Your task to perform on an android device: delete browsing data in the chrome app Image 0: 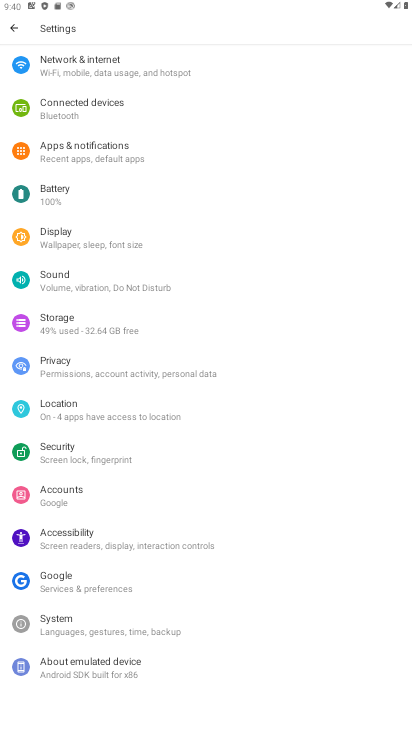
Step 0: press home button
Your task to perform on an android device: delete browsing data in the chrome app Image 1: 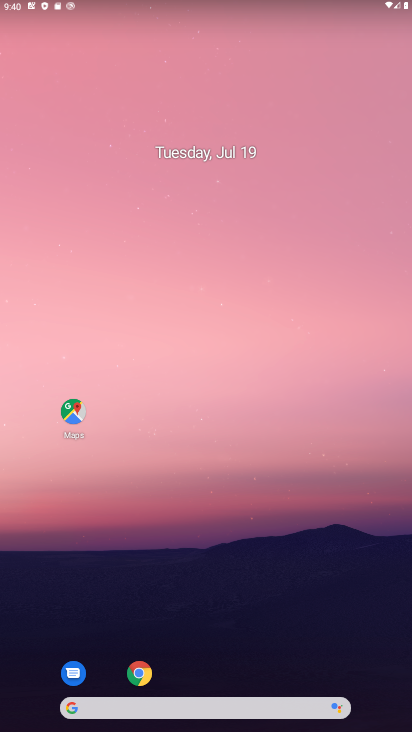
Step 1: click (150, 667)
Your task to perform on an android device: delete browsing data in the chrome app Image 2: 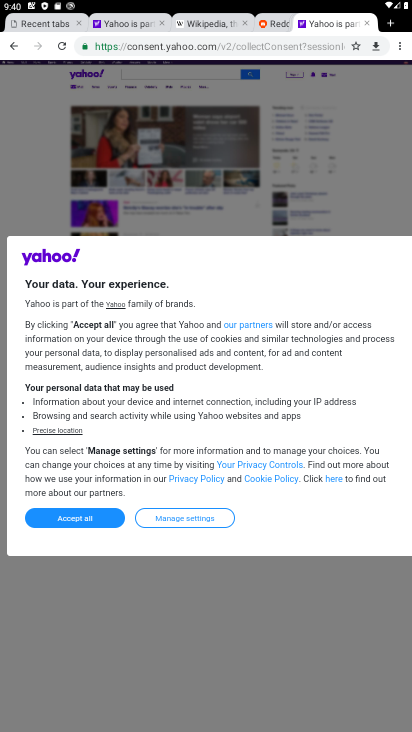
Step 2: drag from (399, 41) to (329, 171)
Your task to perform on an android device: delete browsing data in the chrome app Image 3: 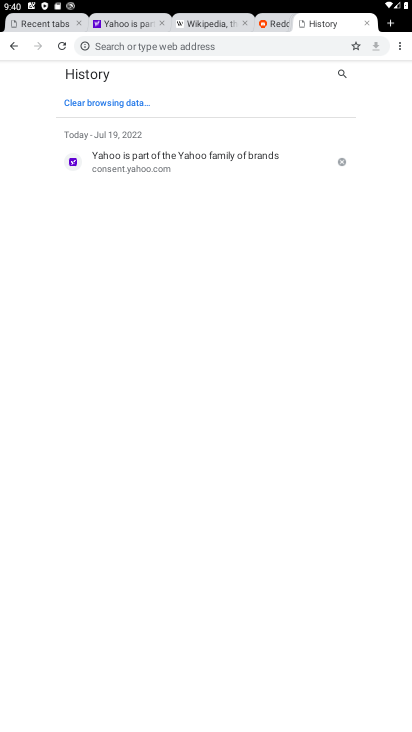
Step 3: click (125, 100)
Your task to perform on an android device: delete browsing data in the chrome app Image 4: 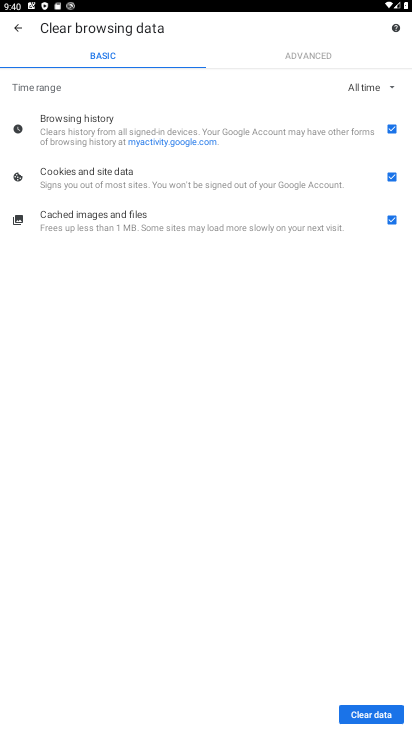
Step 4: click (379, 712)
Your task to perform on an android device: delete browsing data in the chrome app Image 5: 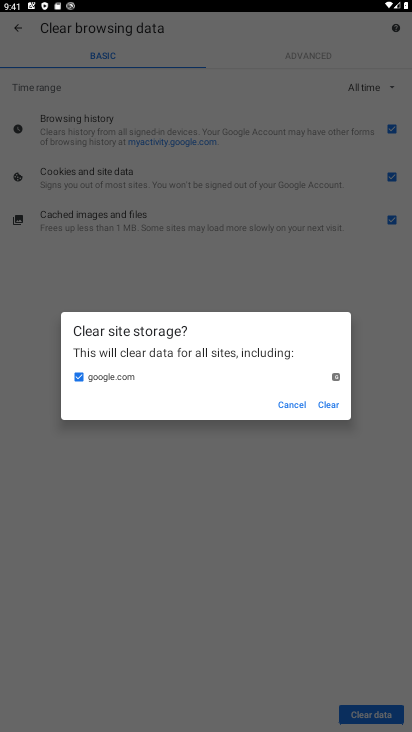
Step 5: click (328, 408)
Your task to perform on an android device: delete browsing data in the chrome app Image 6: 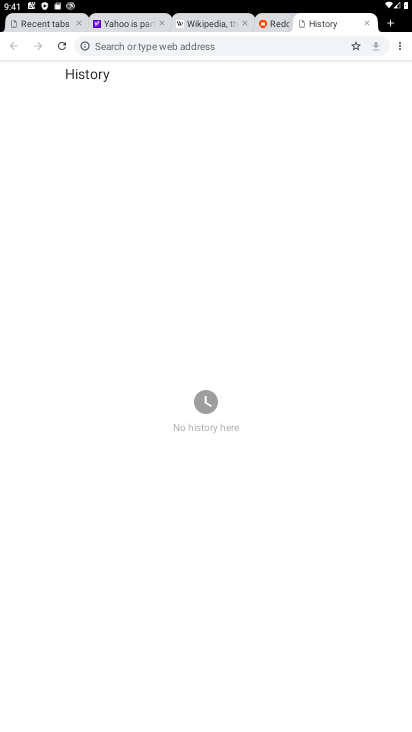
Step 6: task complete